Your task to perform on an android device: turn notification dots on Image 0: 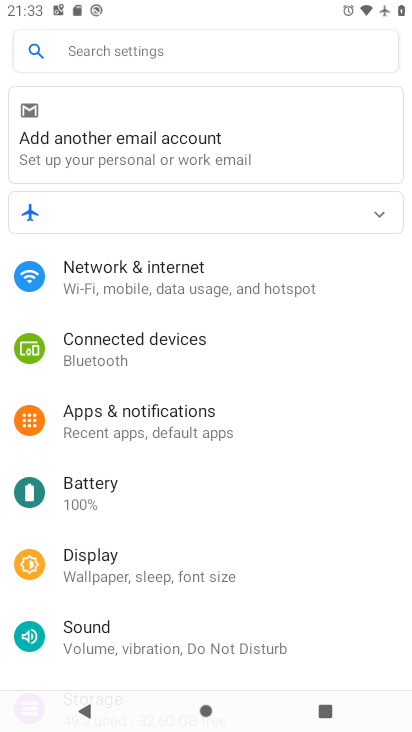
Step 0: press home button
Your task to perform on an android device: turn notification dots on Image 1: 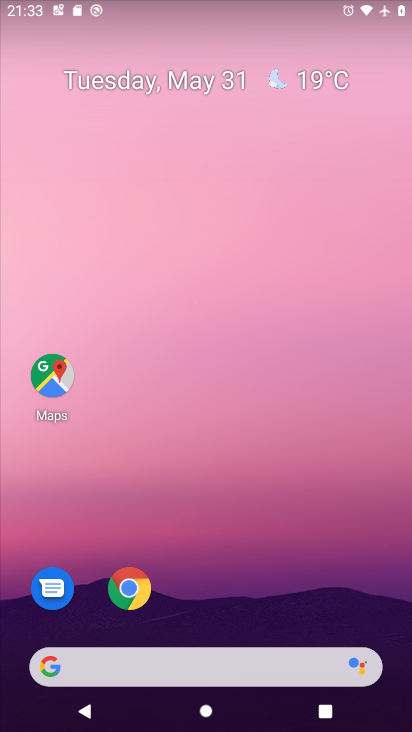
Step 1: drag from (195, 661) to (246, 181)
Your task to perform on an android device: turn notification dots on Image 2: 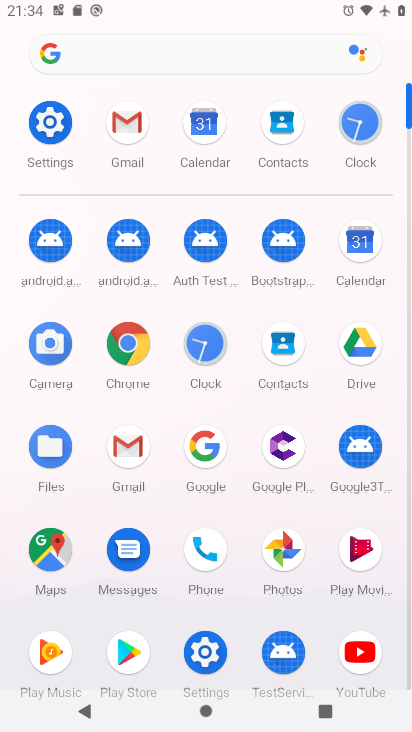
Step 2: click (50, 122)
Your task to perform on an android device: turn notification dots on Image 3: 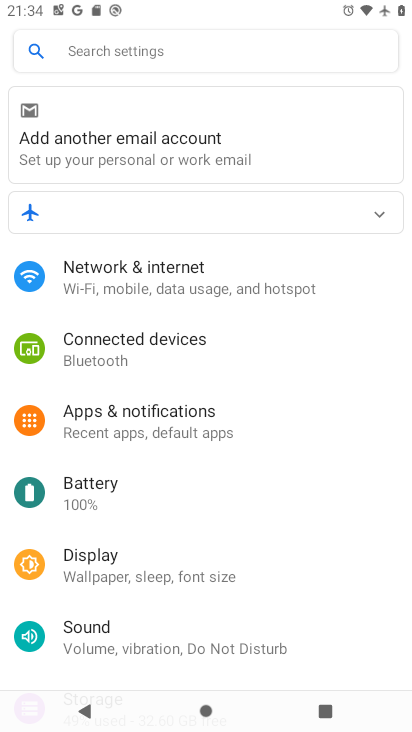
Step 3: click (181, 416)
Your task to perform on an android device: turn notification dots on Image 4: 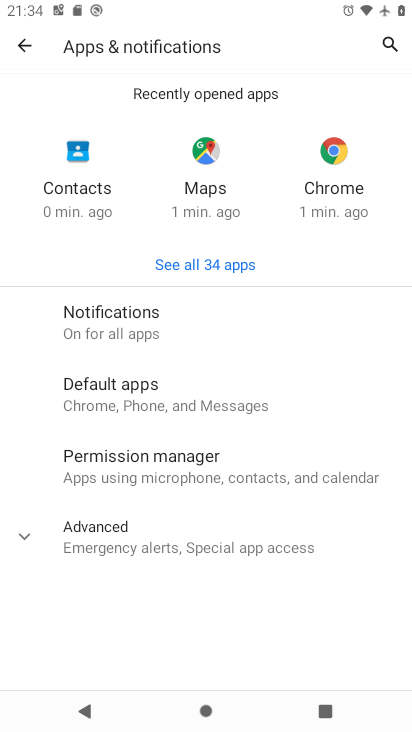
Step 4: click (135, 333)
Your task to perform on an android device: turn notification dots on Image 5: 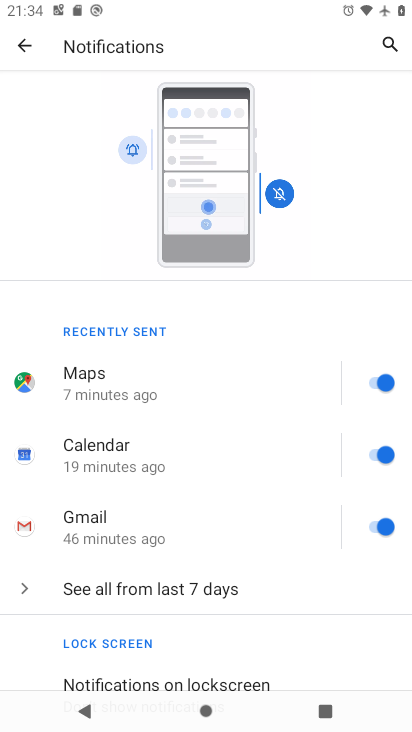
Step 5: drag from (244, 649) to (332, 287)
Your task to perform on an android device: turn notification dots on Image 6: 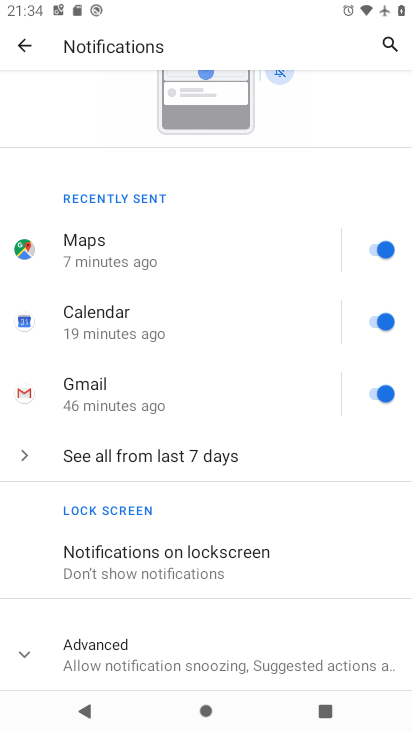
Step 6: click (114, 652)
Your task to perform on an android device: turn notification dots on Image 7: 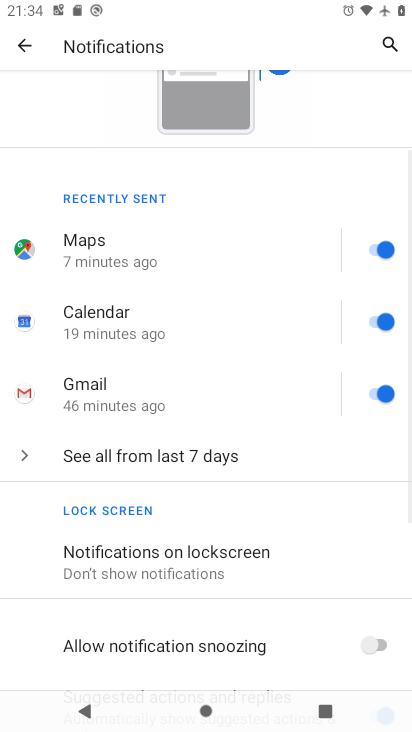
Step 7: task complete